Your task to perform on an android device: Is it going to rain tomorrow? Image 0: 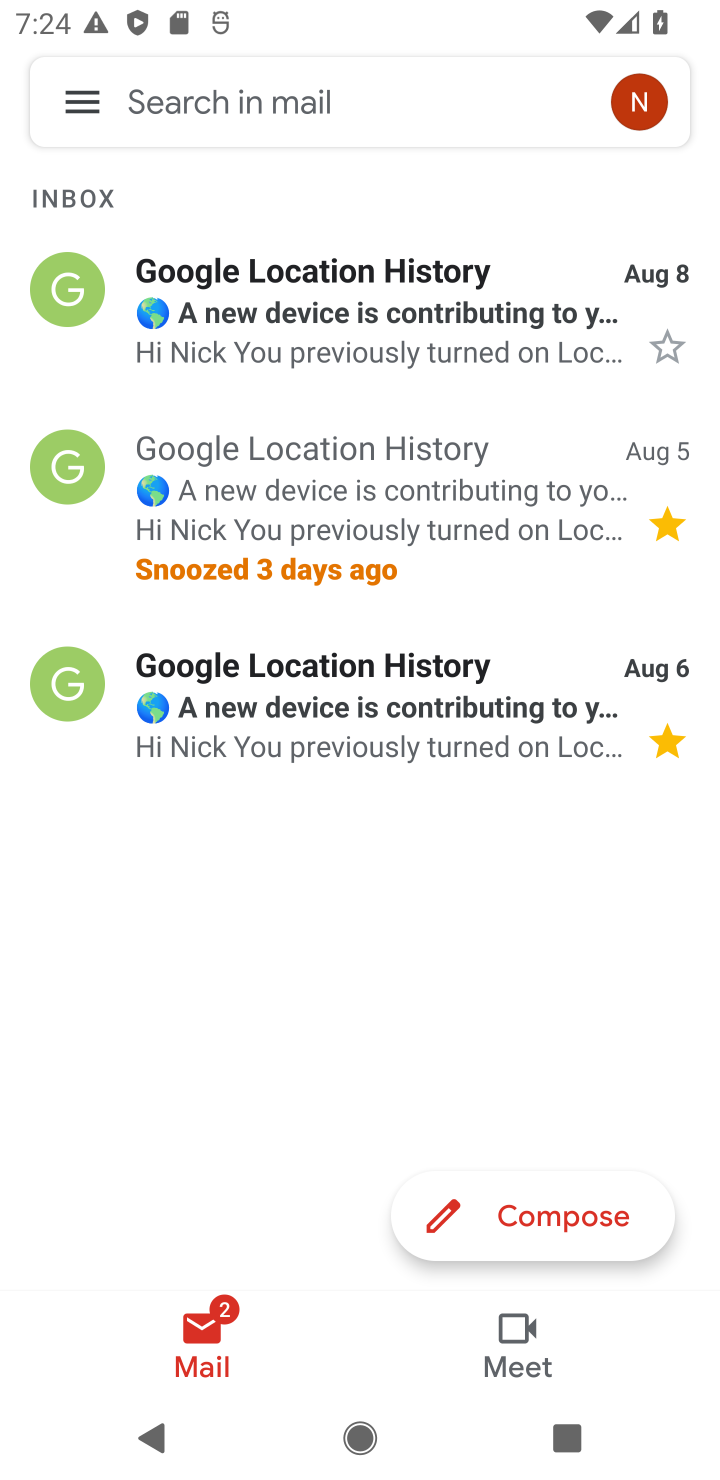
Step 0: press home button
Your task to perform on an android device: Is it going to rain tomorrow? Image 1: 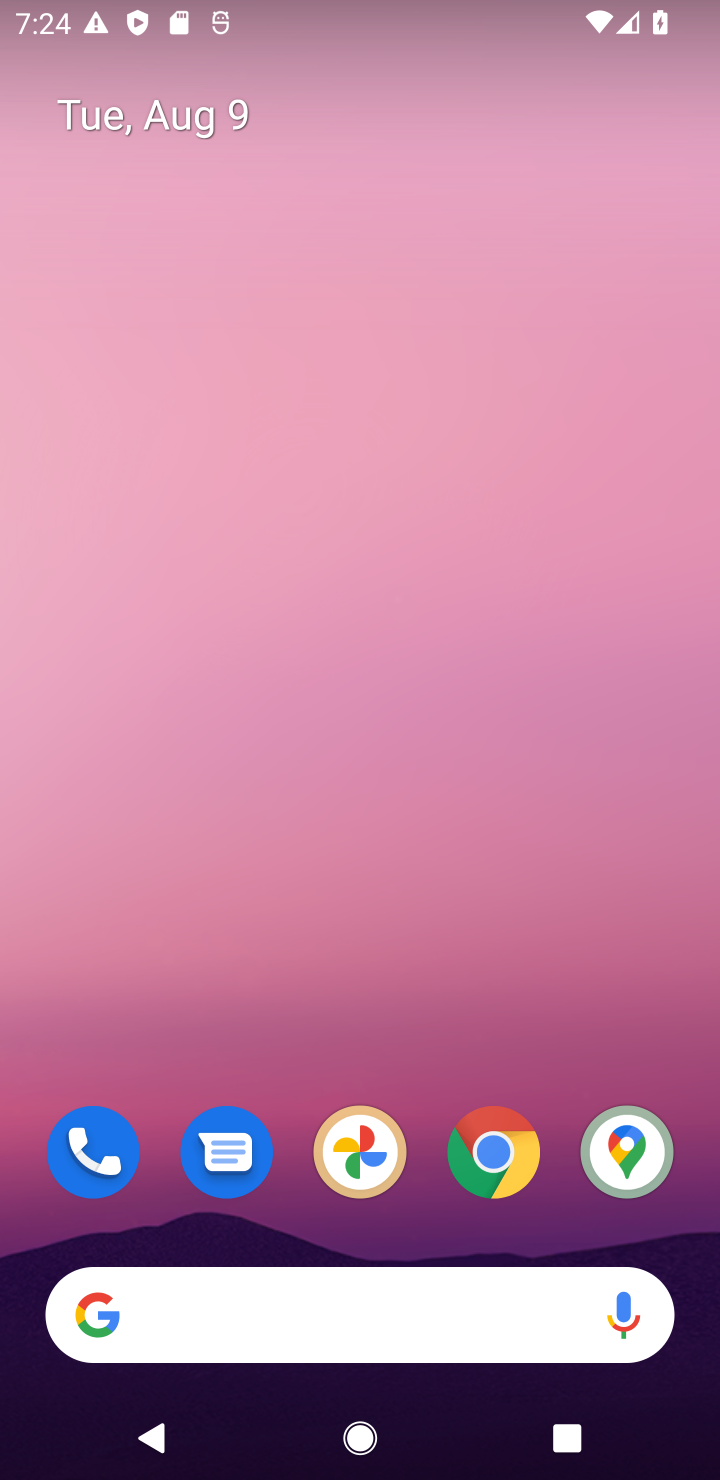
Step 1: click (323, 1296)
Your task to perform on an android device: Is it going to rain tomorrow? Image 2: 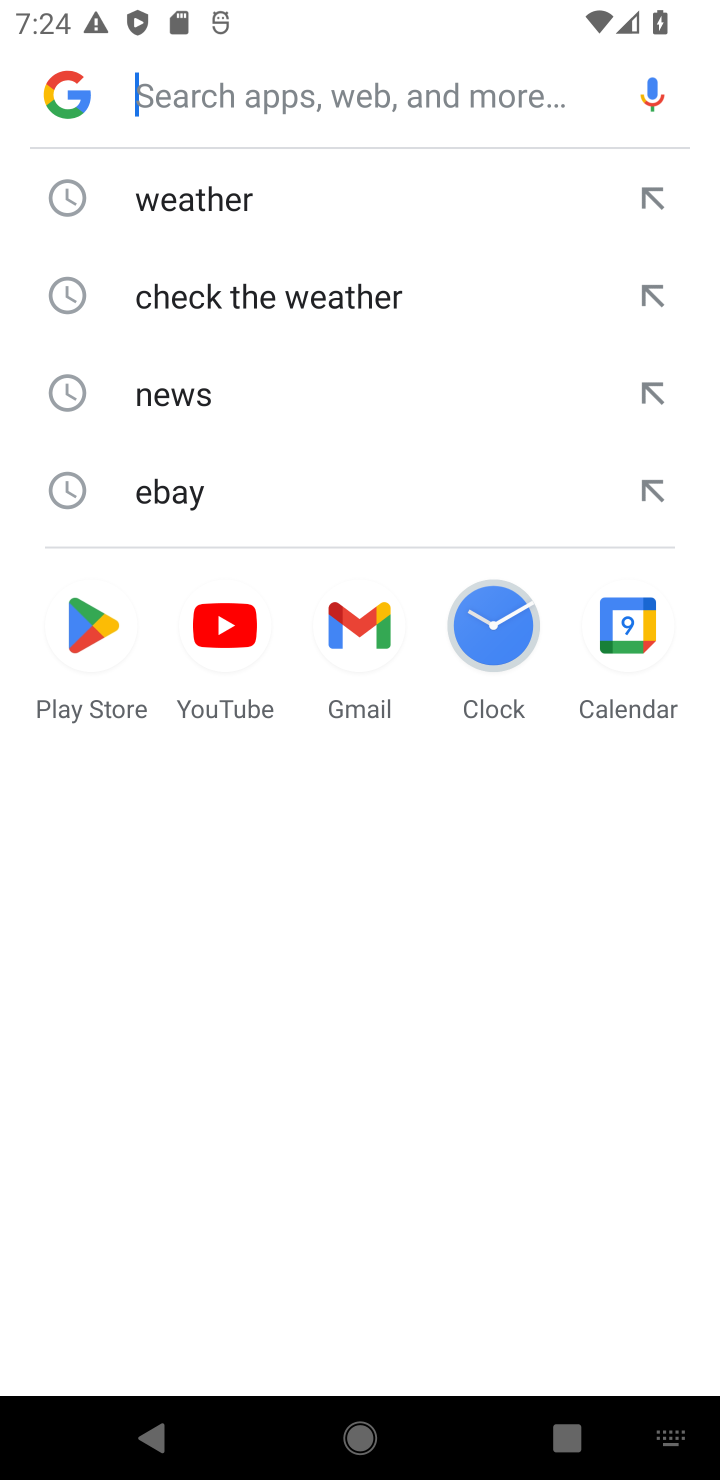
Step 2: click (117, 186)
Your task to perform on an android device: Is it going to rain tomorrow? Image 3: 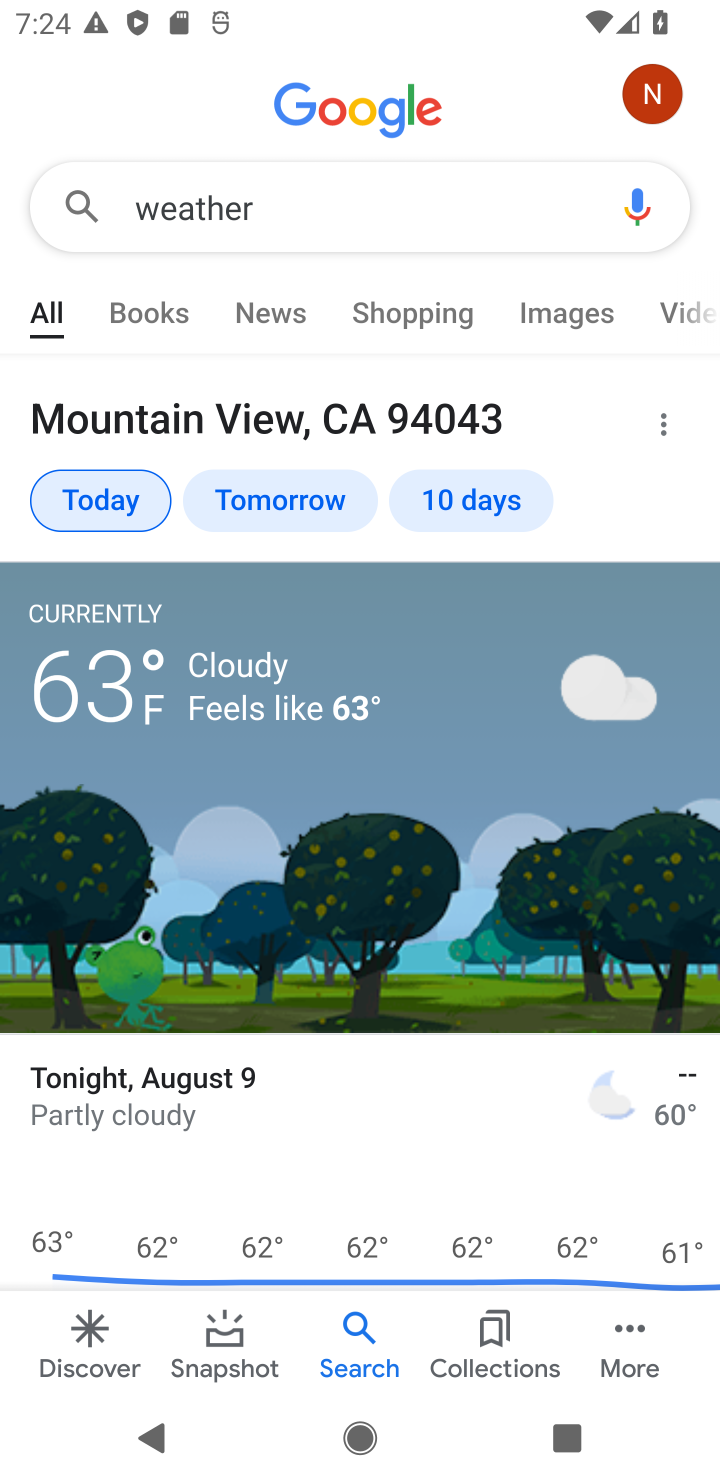
Step 3: click (287, 476)
Your task to perform on an android device: Is it going to rain tomorrow? Image 4: 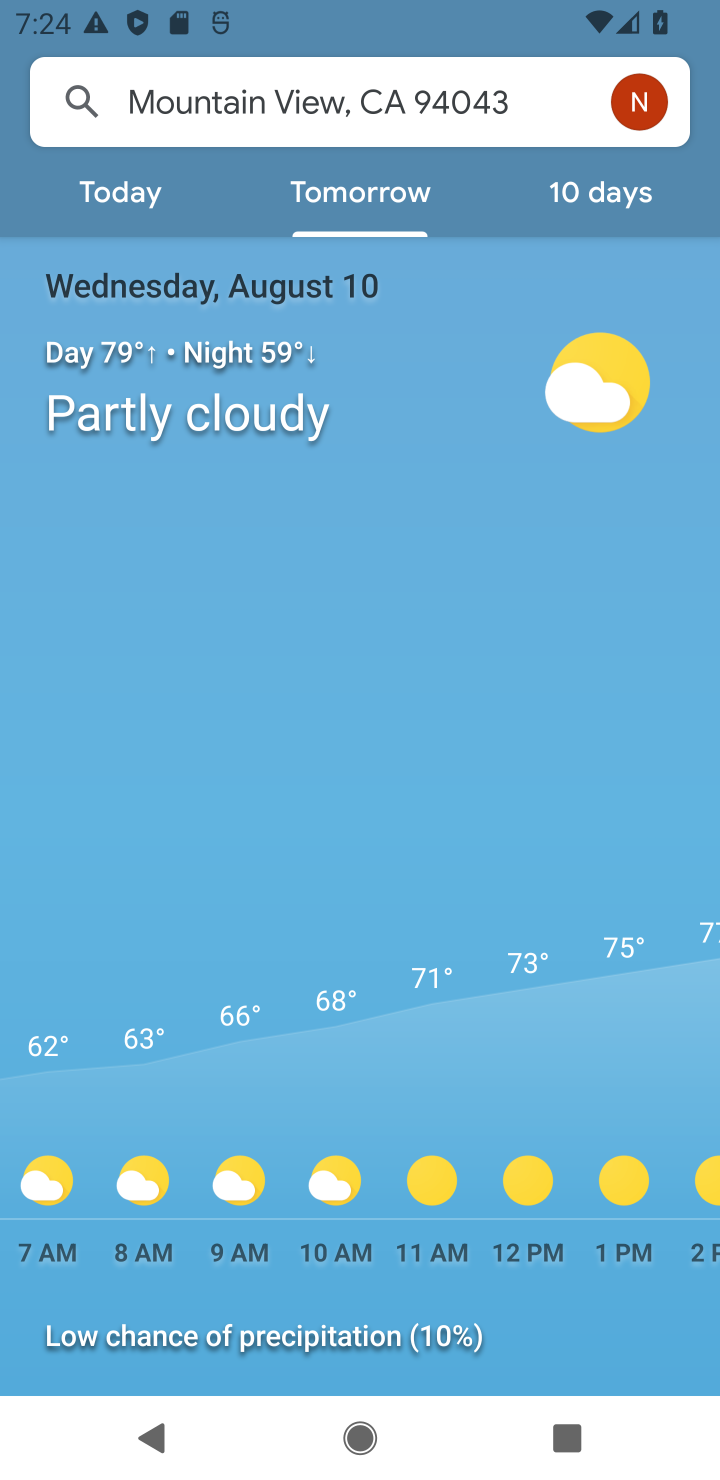
Step 4: task complete